Your task to perform on an android device: Go to location settings Image 0: 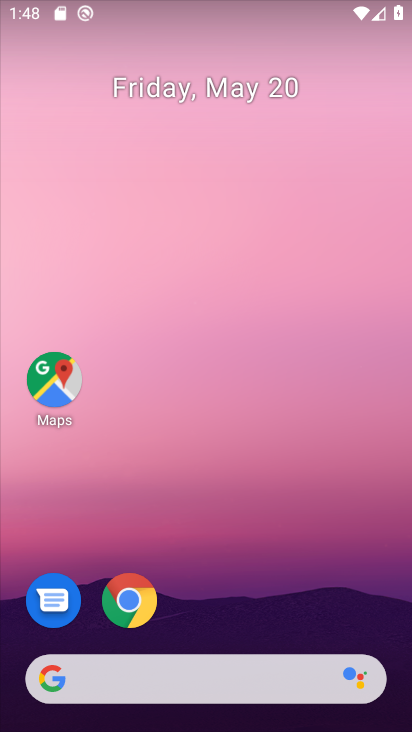
Step 0: drag from (315, 555) to (236, 43)
Your task to perform on an android device: Go to location settings Image 1: 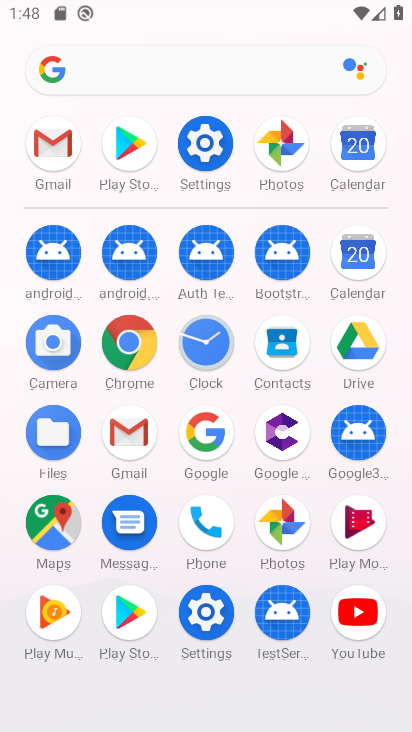
Step 1: click (212, 151)
Your task to perform on an android device: Go to location settings Image 2: 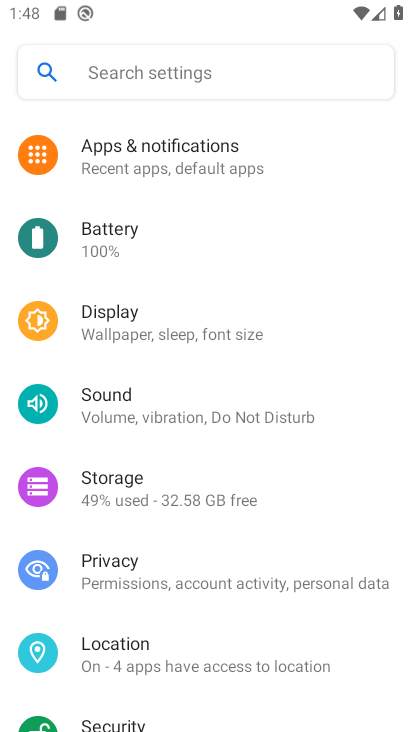
Step 2: click (212, 645)
Your task to perform on an android device: Go to location settings Image 3: 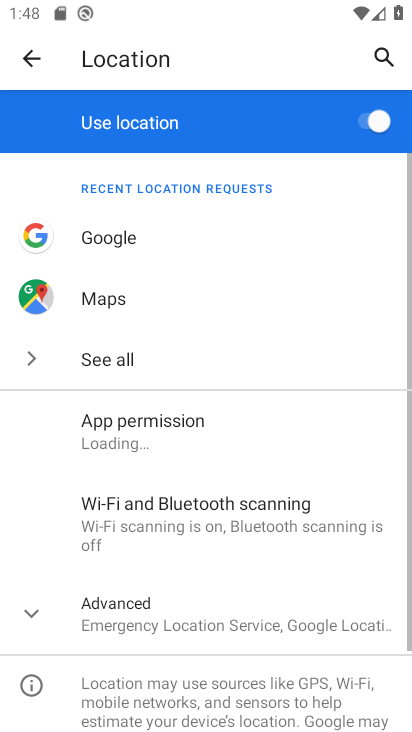
Step 3: task complete